Your task to perform on an android device: Search for usb-c to usb-b on costco.com, select the first entry, add it to the cart, then select checkout. Image 0: 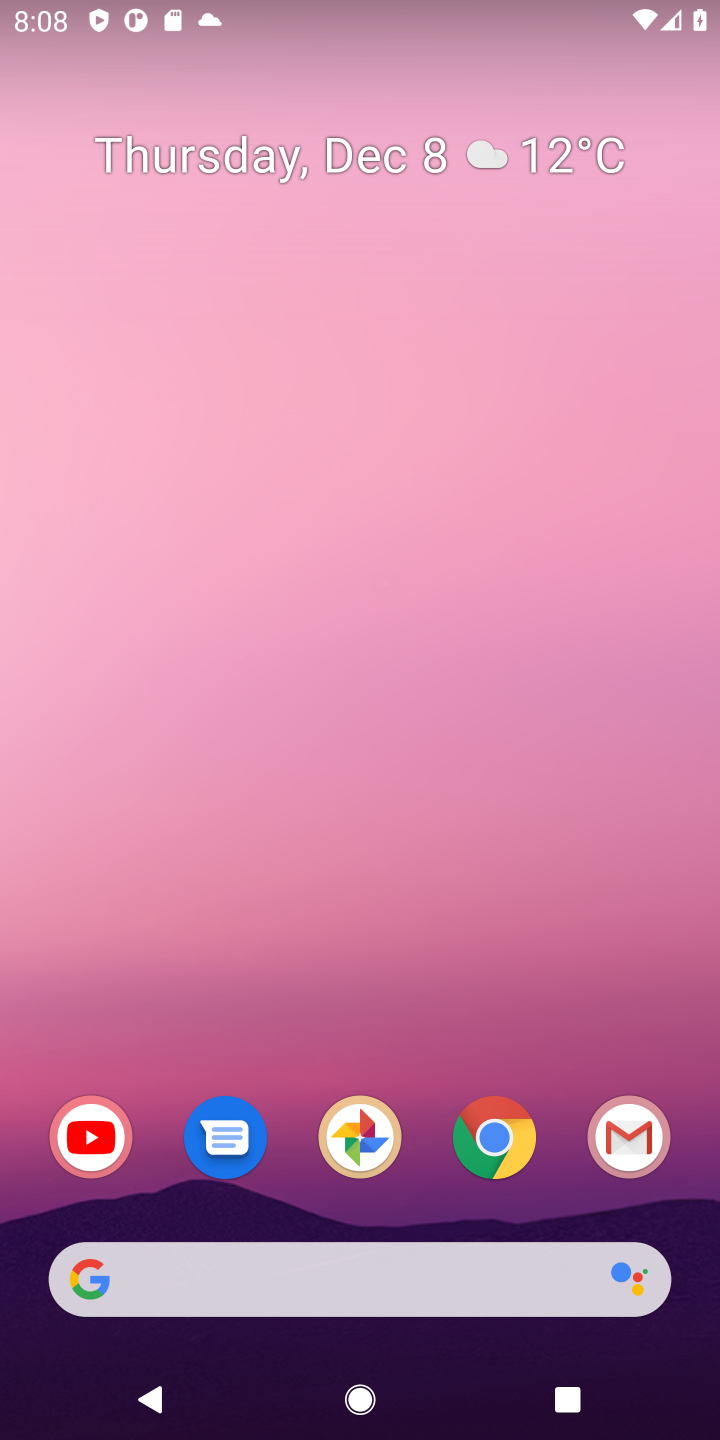
Step 0: click (481, 1117)
Your task to perform on an android device: Search for usb-c to usb-b on costco.com, select the first entry, add it to the cart, then select checkout. Image 1: 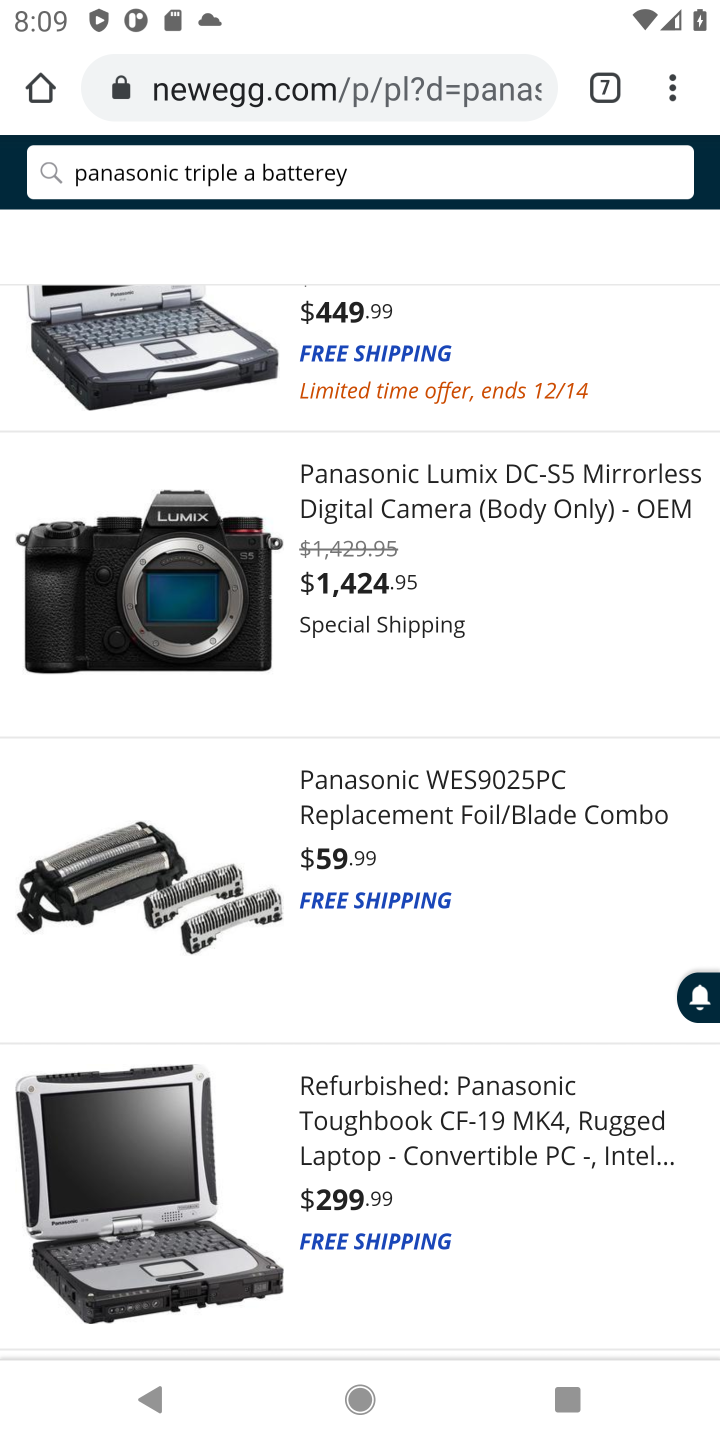
Step 1: click (607, 89)
Your task to perform on an android device: Search for usb-c to usb-b on costco.com, select the first entry, add it to the cart, then select checkout. Image 2: 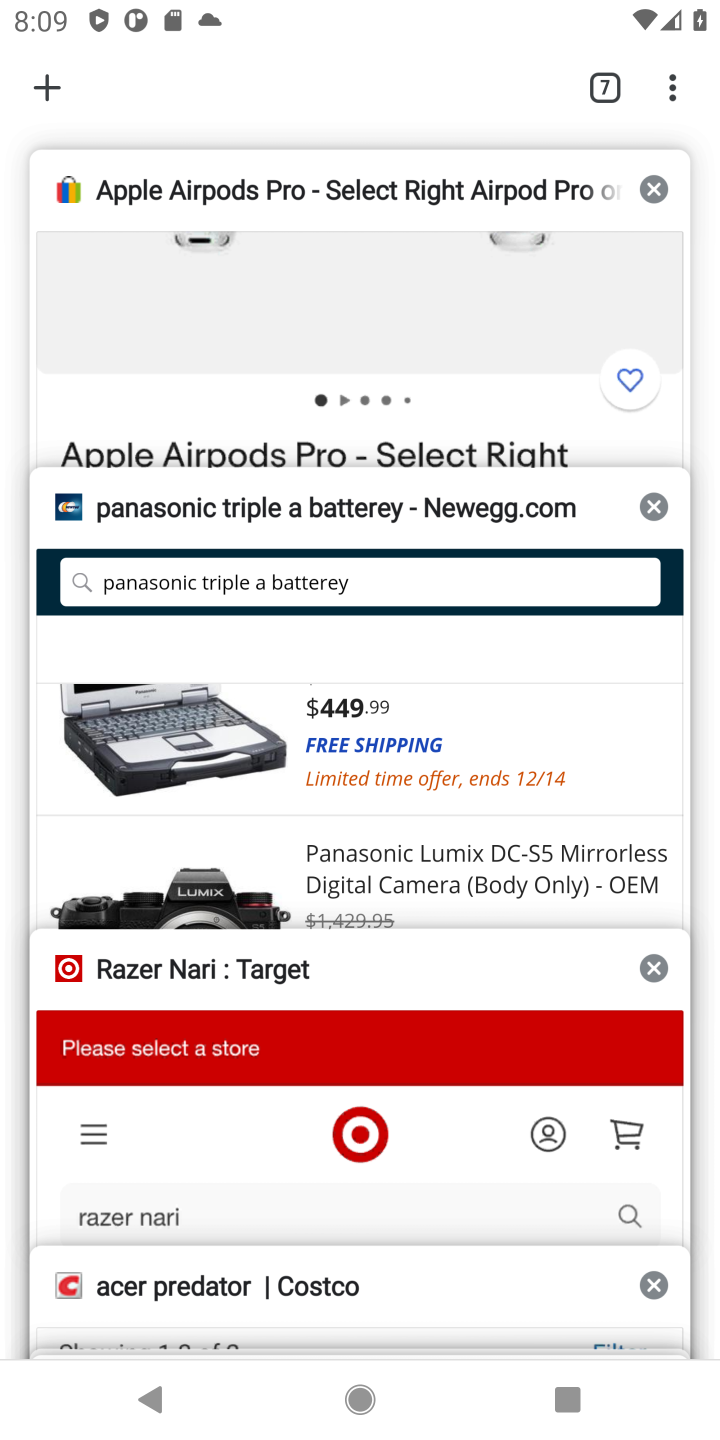
Step 2: click (360, 1295)
Your task to perform on an android device: Search for usb-c to usb-b on costco.com, select the first entry, add it to the cart, then select checkout. Image 3: 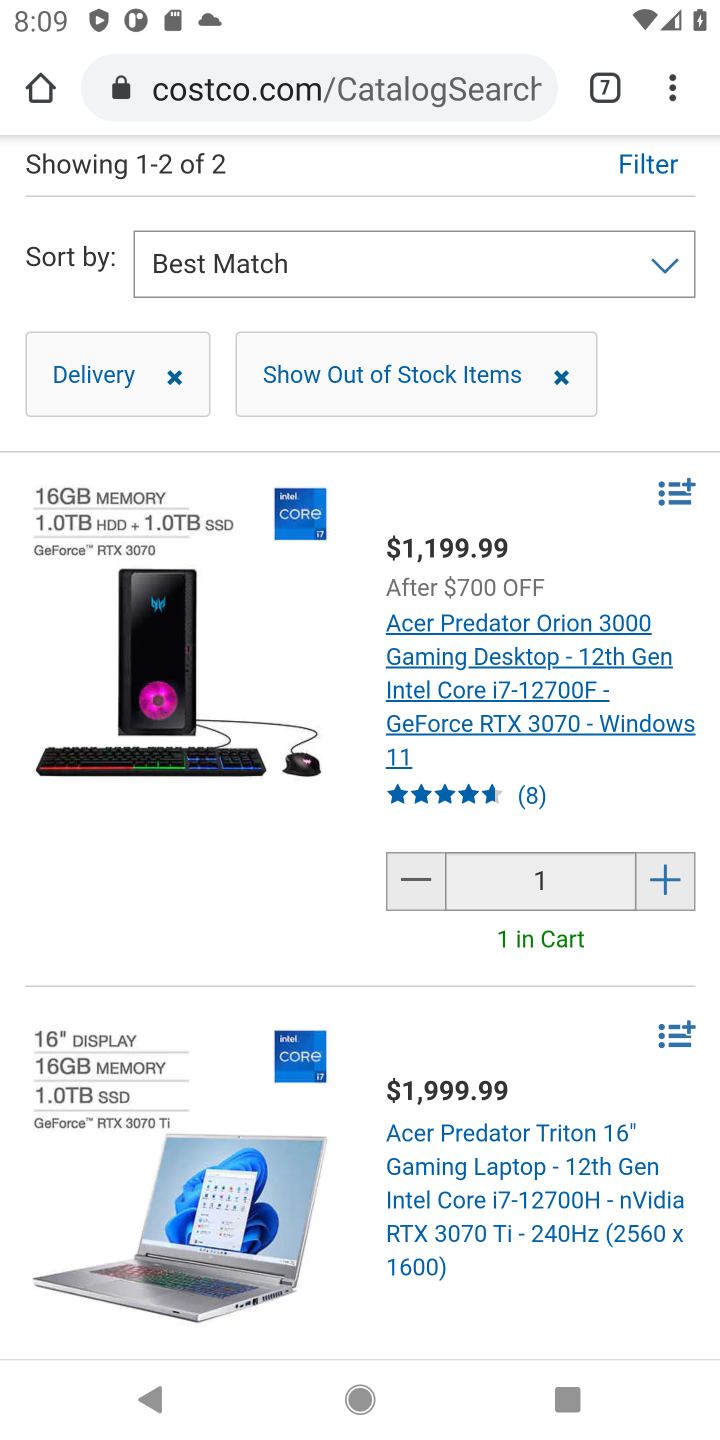
Step 3: drag from (413, 189) to (319, 779)
Your task to perform on an android device: Search for usb-c to usb-b on costco.com, select the first entry, add it to the cart, then select checkout. Image 4: 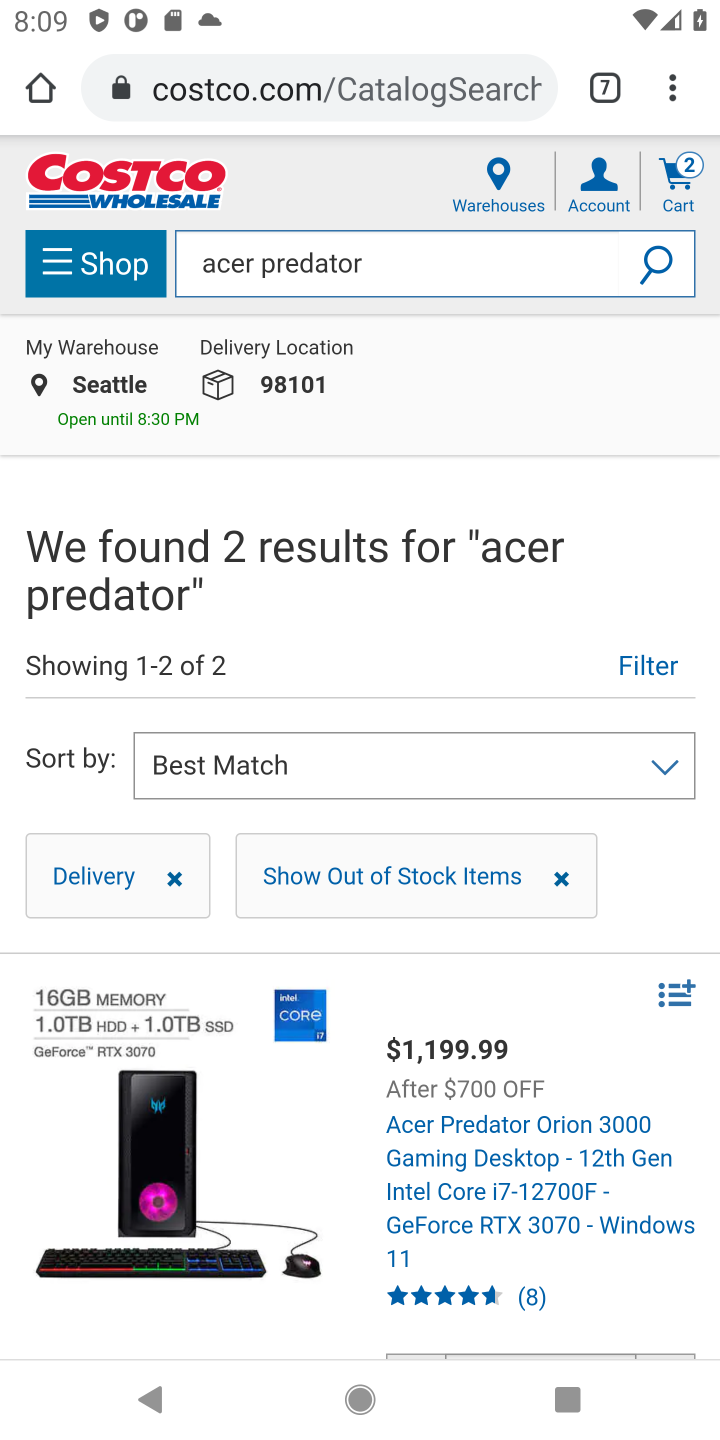
Step 4: click (372, 262)
Your task to perform on an android device: Search for usb-c to usb-b on costco.com, select the first entry, add it to the cart, then select checkout. Image 5: 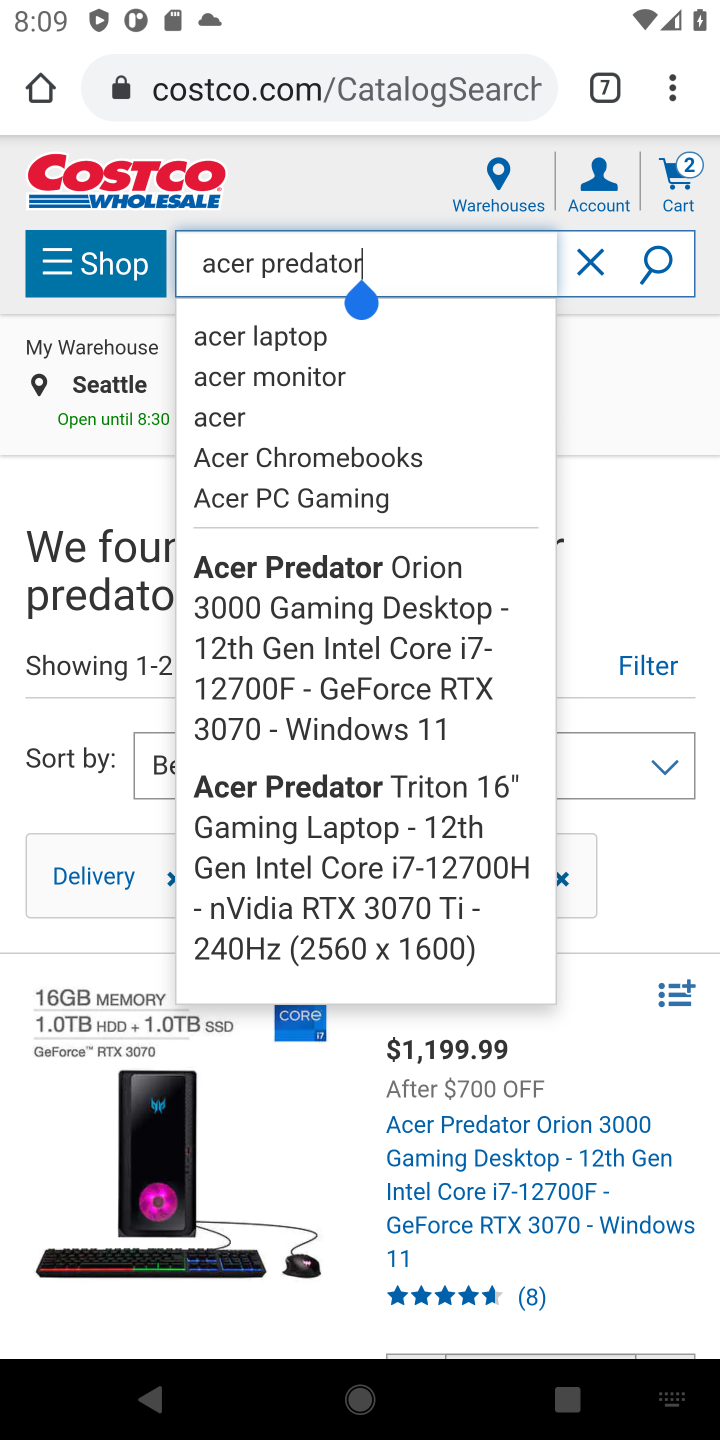
Step 5: click (590, 267)
Your task to perform on an android device: Search for usb-c to usb-b on costco.com, select the first entry, add it to the cart, then select checkout. Image 6: 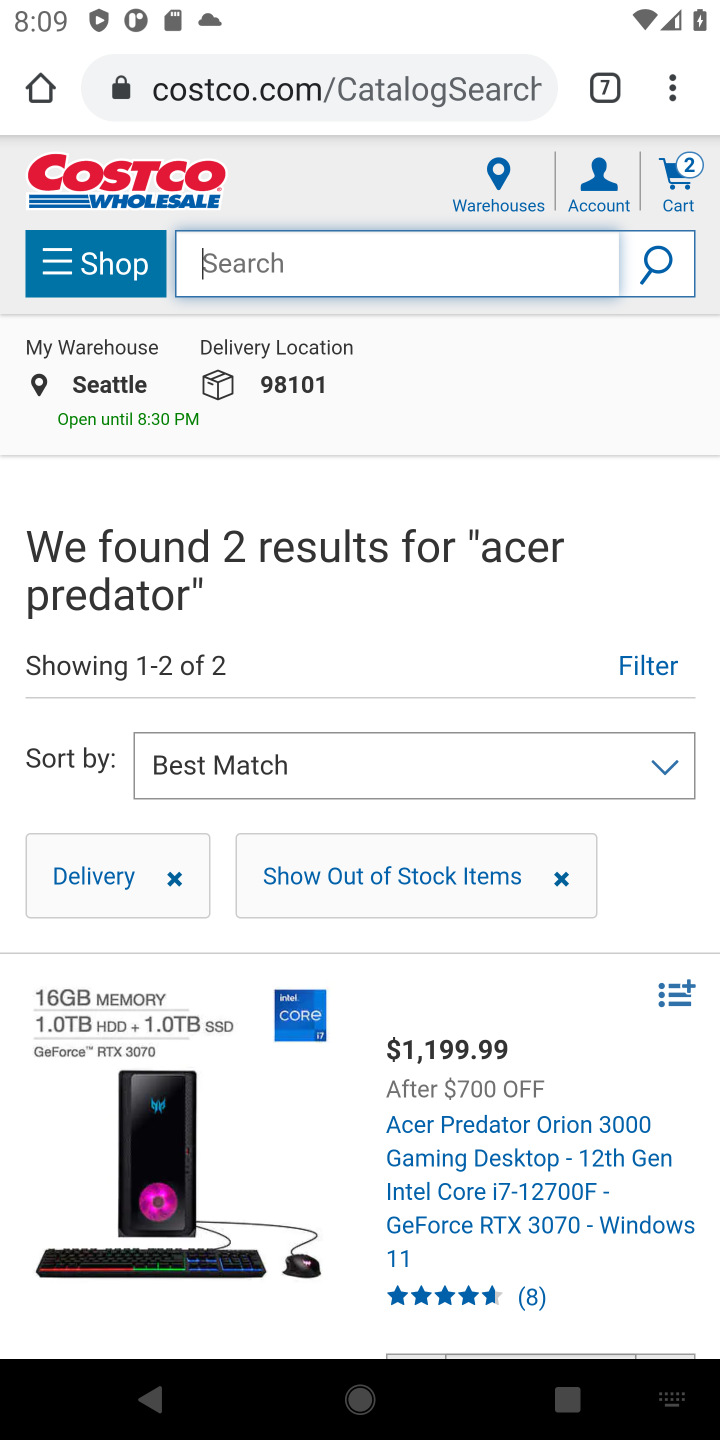
Step 6: type "usb-c to usb-b"
Your task to perform on an android device: Search for usb-c to usb-b on costco.com, select the first entry, add it to the cart, then select checkout. Image 7: 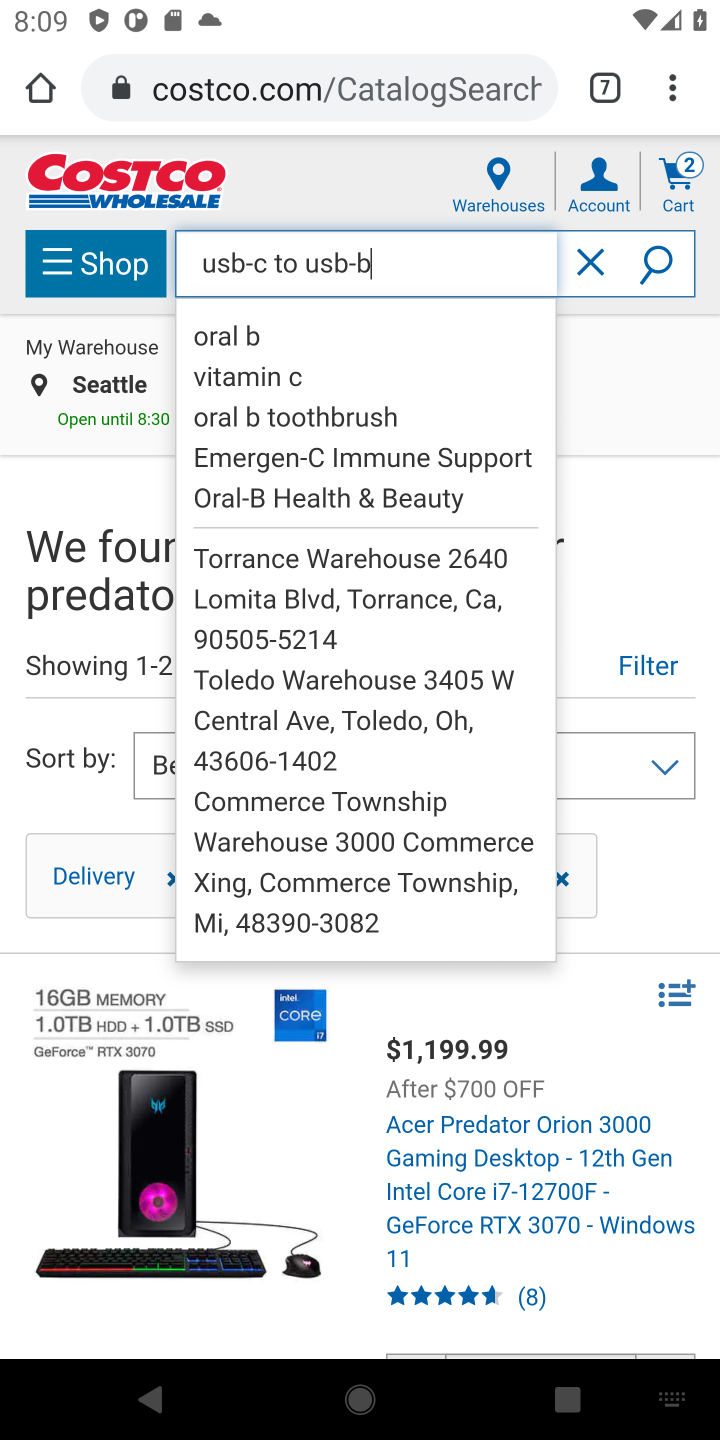
Step 7: click (656, 274)
Your task to perform on an android device: Search for usb-c to usb-b on costco.com, select the first entry, add it to the cart, then select checkout. Image 8: 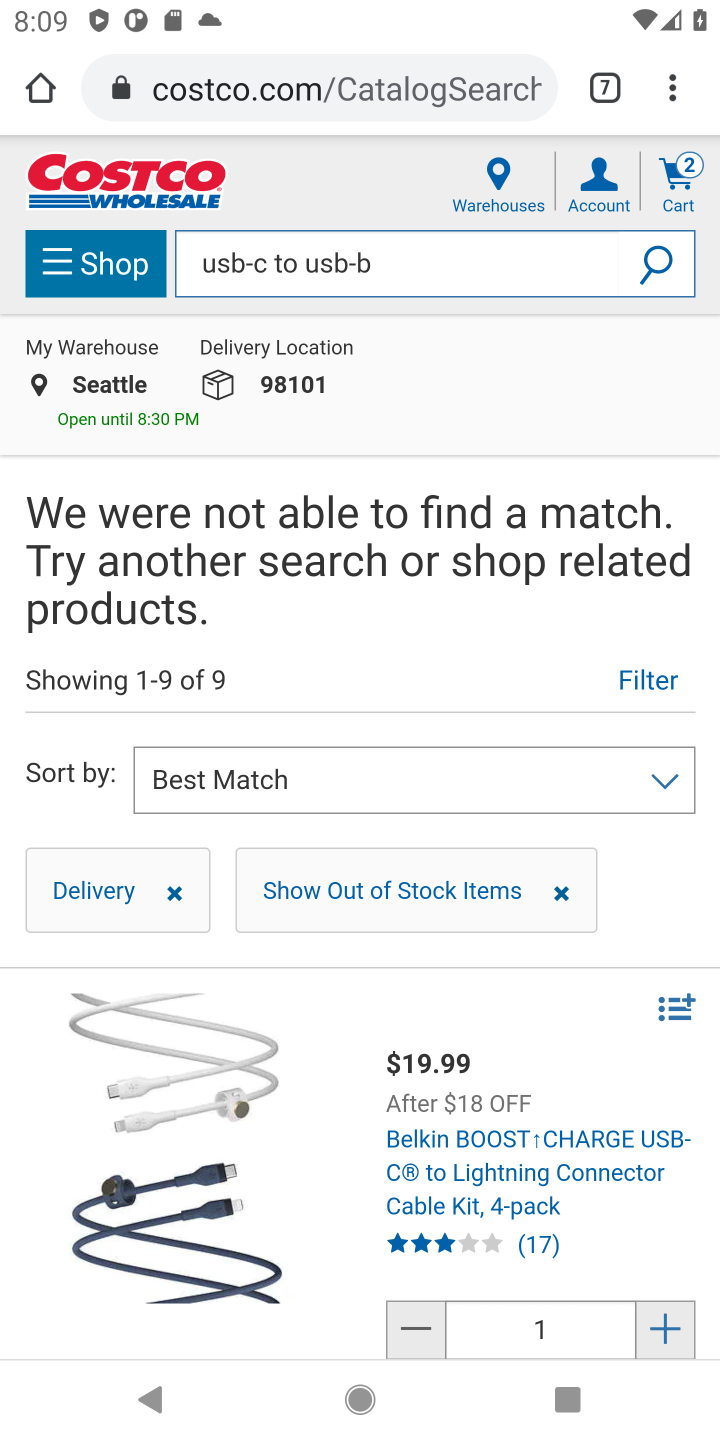
Step 8: task complete